Your task to perform on an android device: Open Google Maps Image 0: 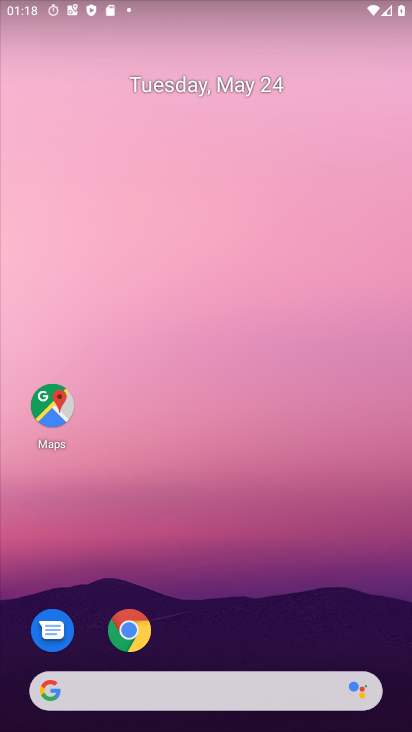
Step 0: click (55, 400)
Your task to perform on an android device: Open Google Maps Image 1: 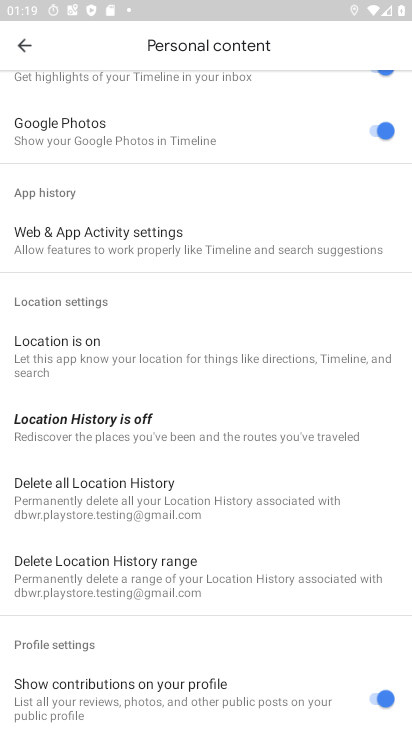
Step 1: task complete